Your task to perform on an android device: turn on showing notifications on the lock screen Image 0: 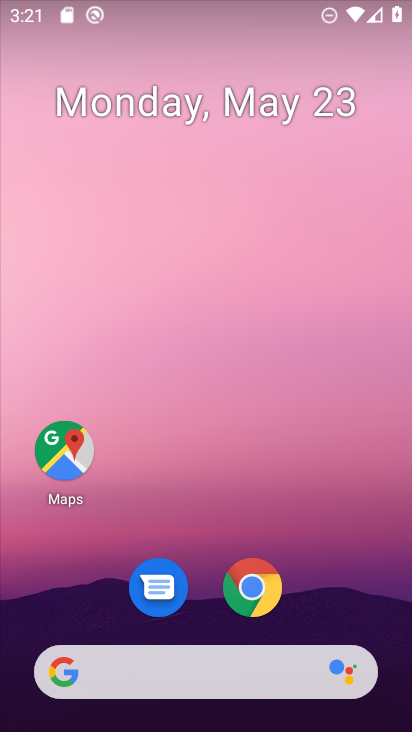
Step 0: drag from (200, 598) to (192, 0)
Your task to perform on an android device: turn on showing notifications on the lock screen Image 1: 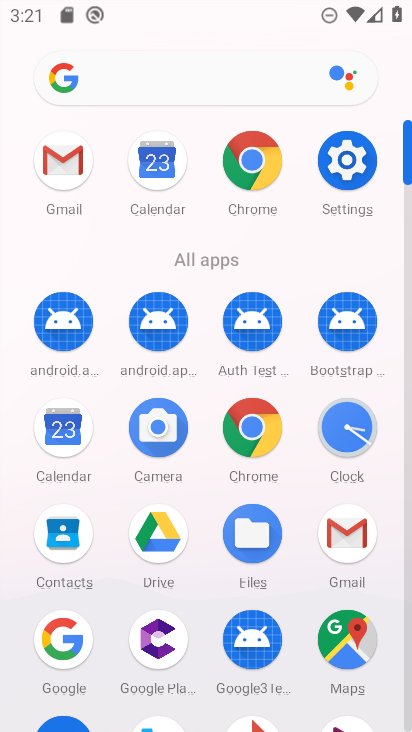
Step 1: click (340, 186)
Your task to perform on an android device: turn on showing notifications on the lock screen Image 2: 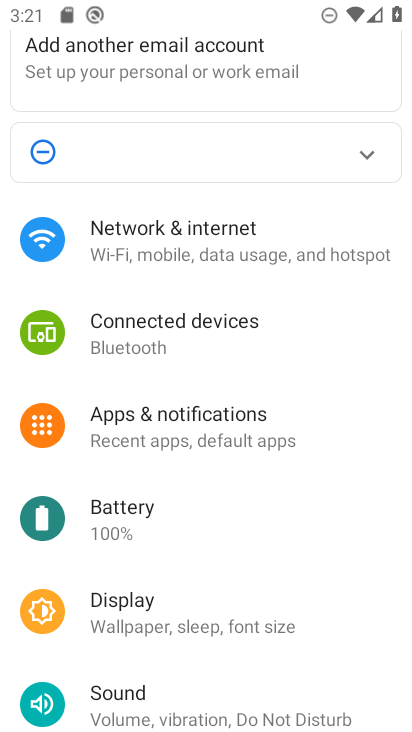
Step 2: click (176, 423)
Your task to perform on an android device: turn on showing notifications on the lock screen Image 3: 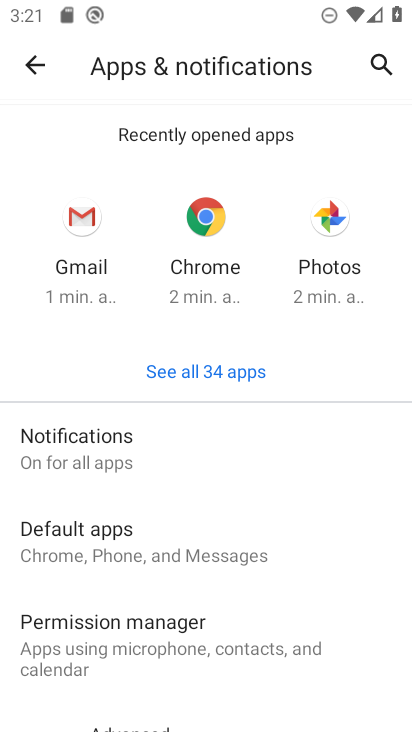
Step 3: click (123, 448)
Your task to perform on an android device: turn on showing notifications on the lock screen Image 4: 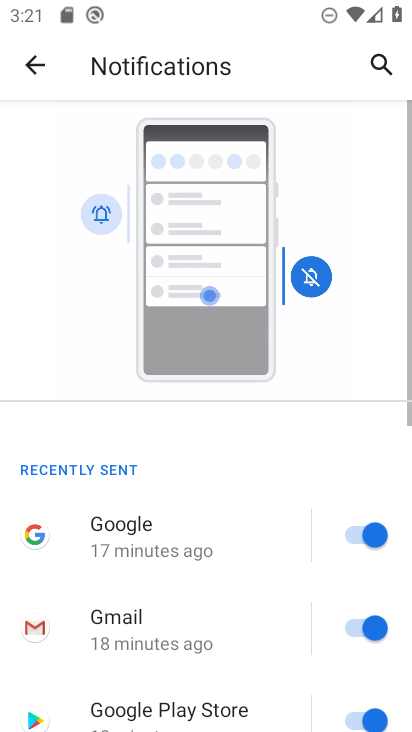
Step 4: drag from (257, 589) to (302, 149)
Your task to perform on an android device: turn on showing notifications on the lock screen Image 5: 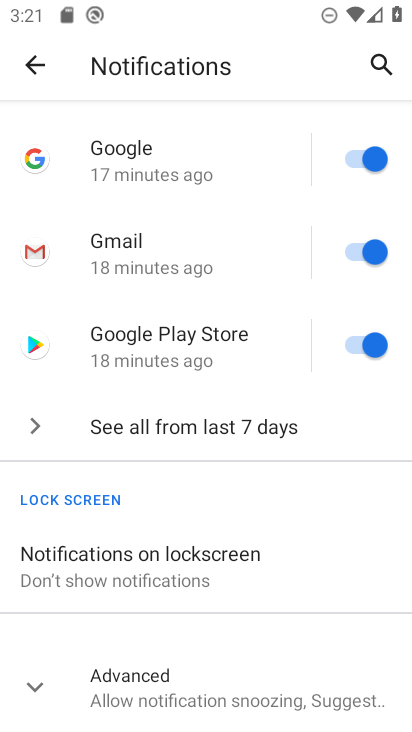
Step 5: click (205, 581)
Your task to perform on an android device: turn on showing notifications on the lock screen Image 6: 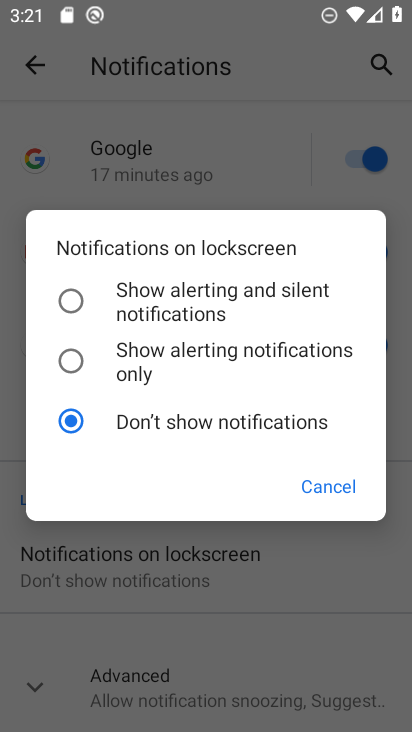
Step 6: click (80, 300)
Your task to perform on an android device: turn on showing notifications on the lock screen Image 7: 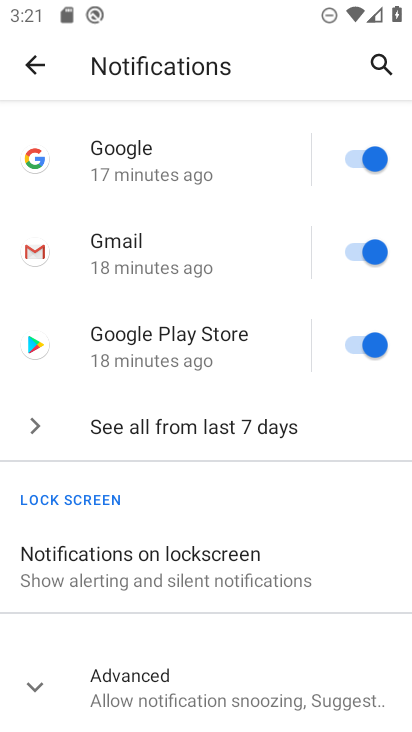
Step 7: task complete